Your task to perform on an android device: Go to Wikipedia Image 0: 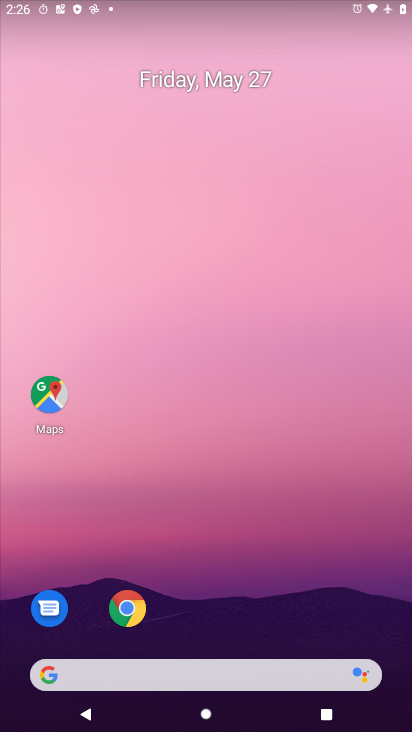
Step 0: press home button
Your task to perform on an android device: Go to Wikipedia Image 1: 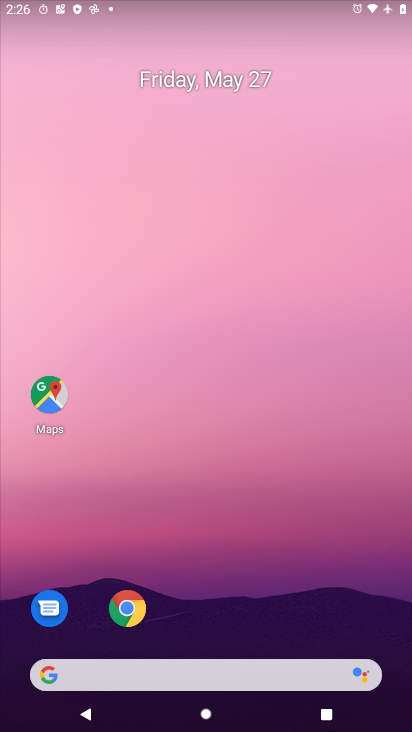
Step 1: click (141, 605)
Your task to perform on an android device: Go to Wikipedia Image 2: 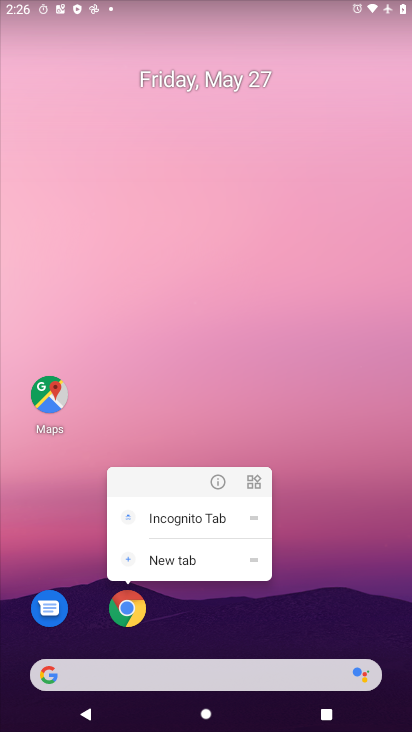
Step 2: click (137, 611)
Your task to perform on an android device: Go to Wikipedia Image 3: 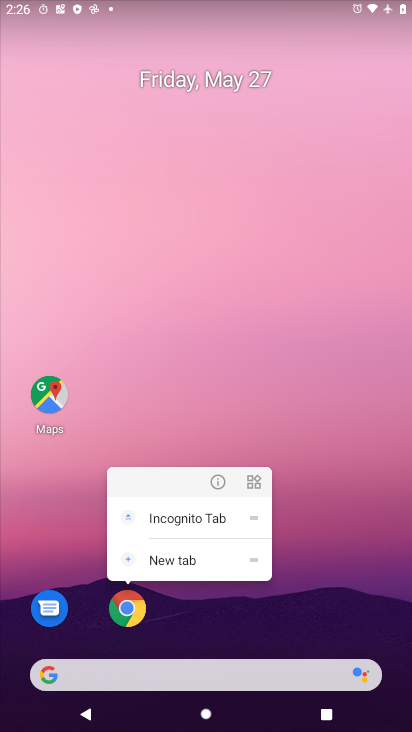
Step 3: click (124, 614)
Your task to perform on an android device: Go to Wikipedia Image 4: 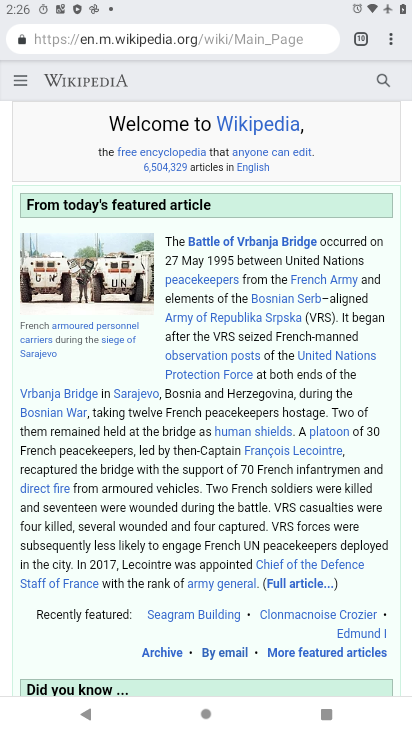
Step 4: task complete